Your task to perform on an android device: What's the news in Japan? Image 0: 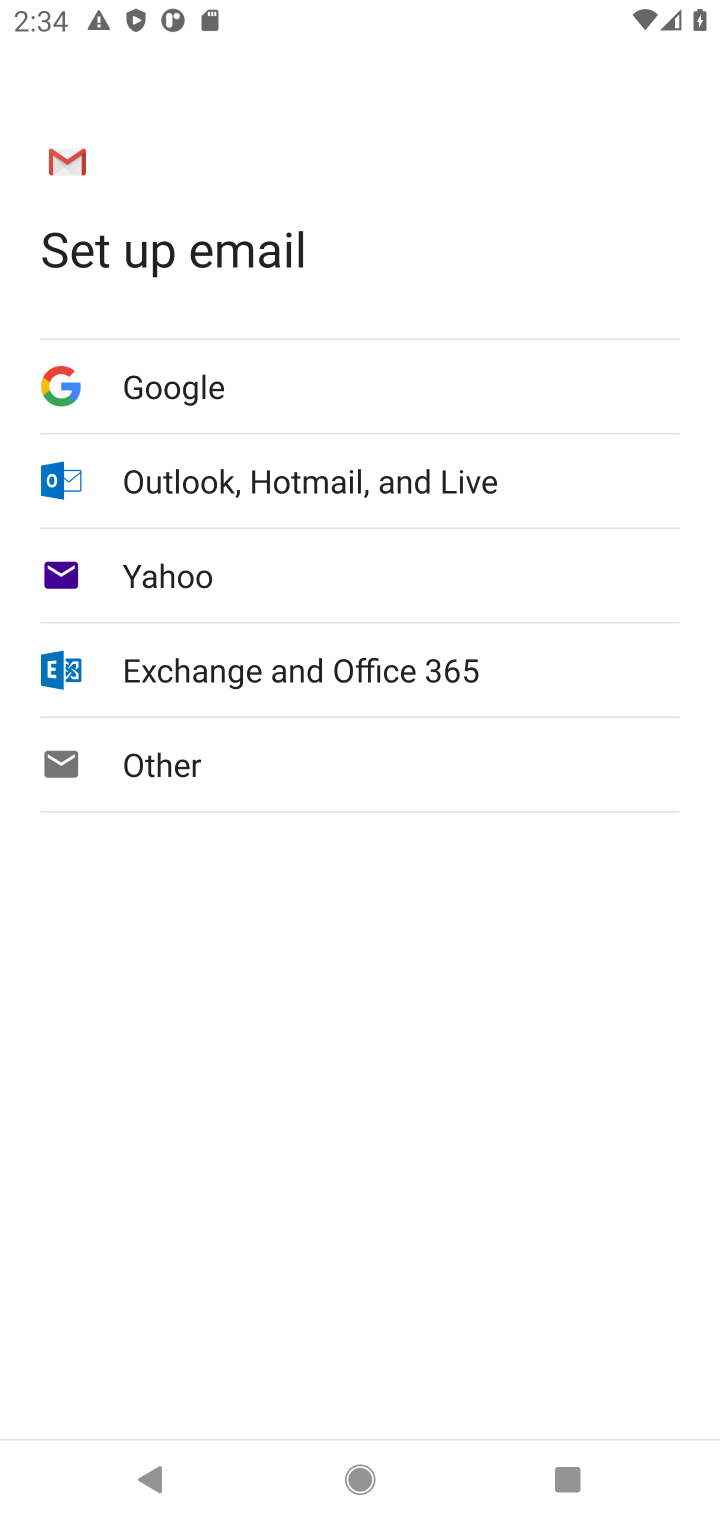
Step 0: press back button
Your task to perform on an android device: What's the news in Japan? Image 1: 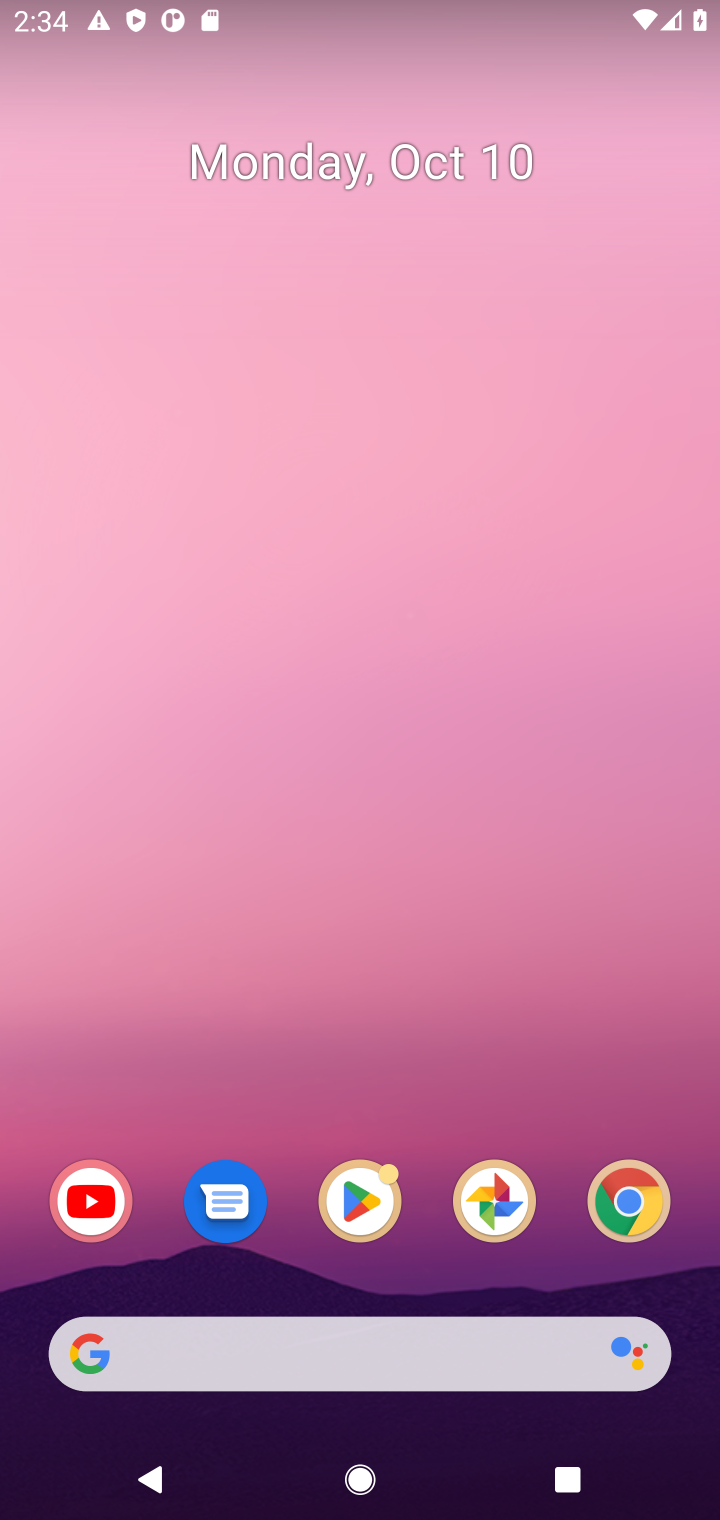
Step 1: type "news in Japan?"
Your task to perform on an android device: What's the news in Japan? Image 2: 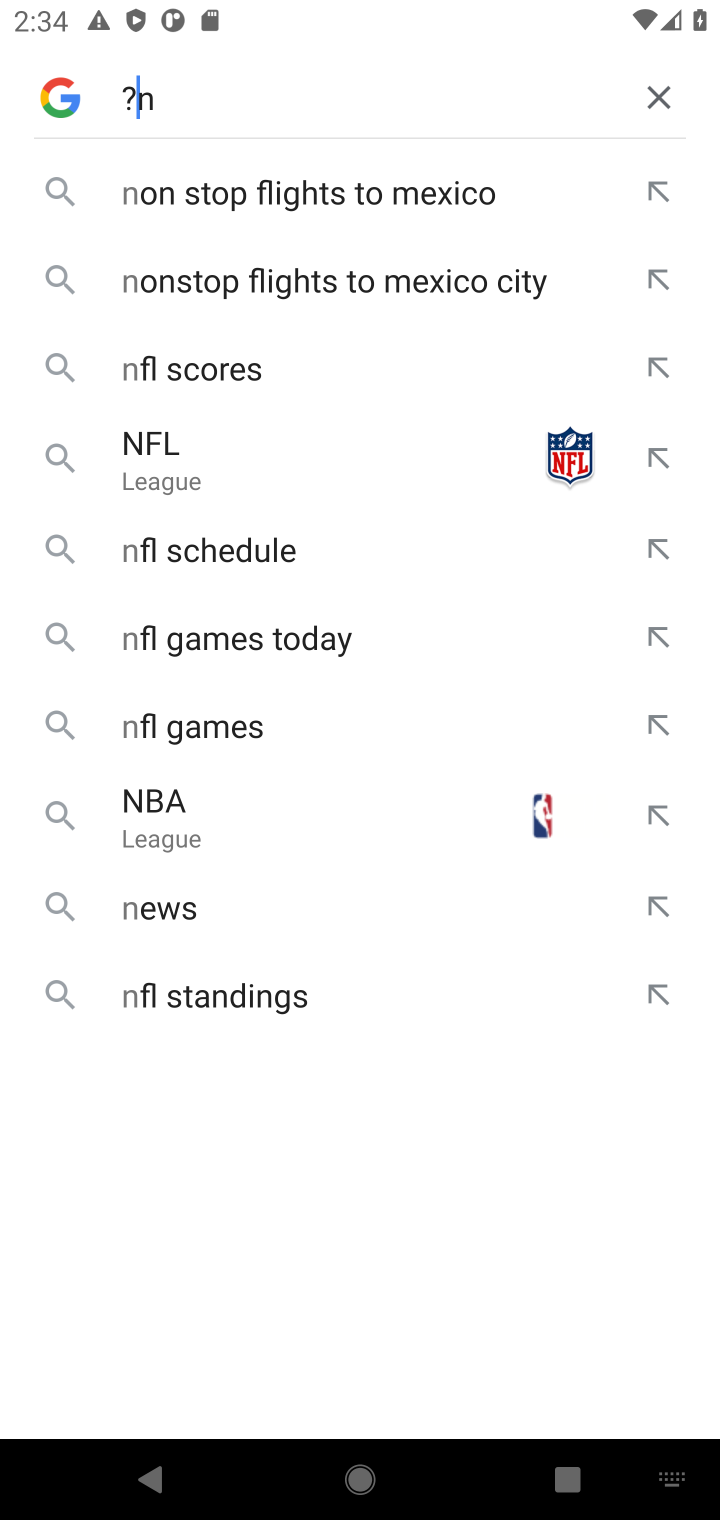
Step 2: click (206, 89)
Your task to perform on an android device: What's the news in Japan? Image 3: 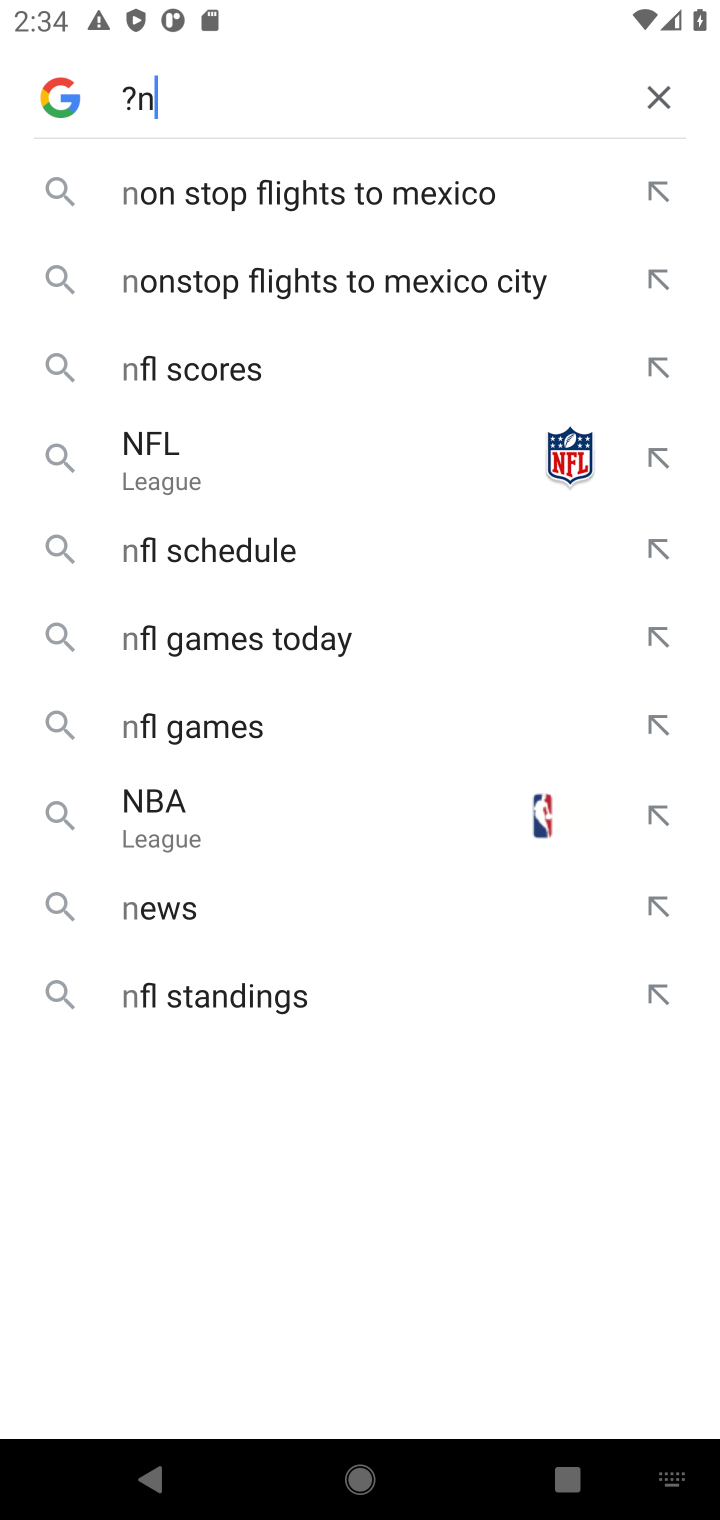
Step 3: click (653, 103)
Your task to perform on an android device: What's the news in Japan? Image 4: 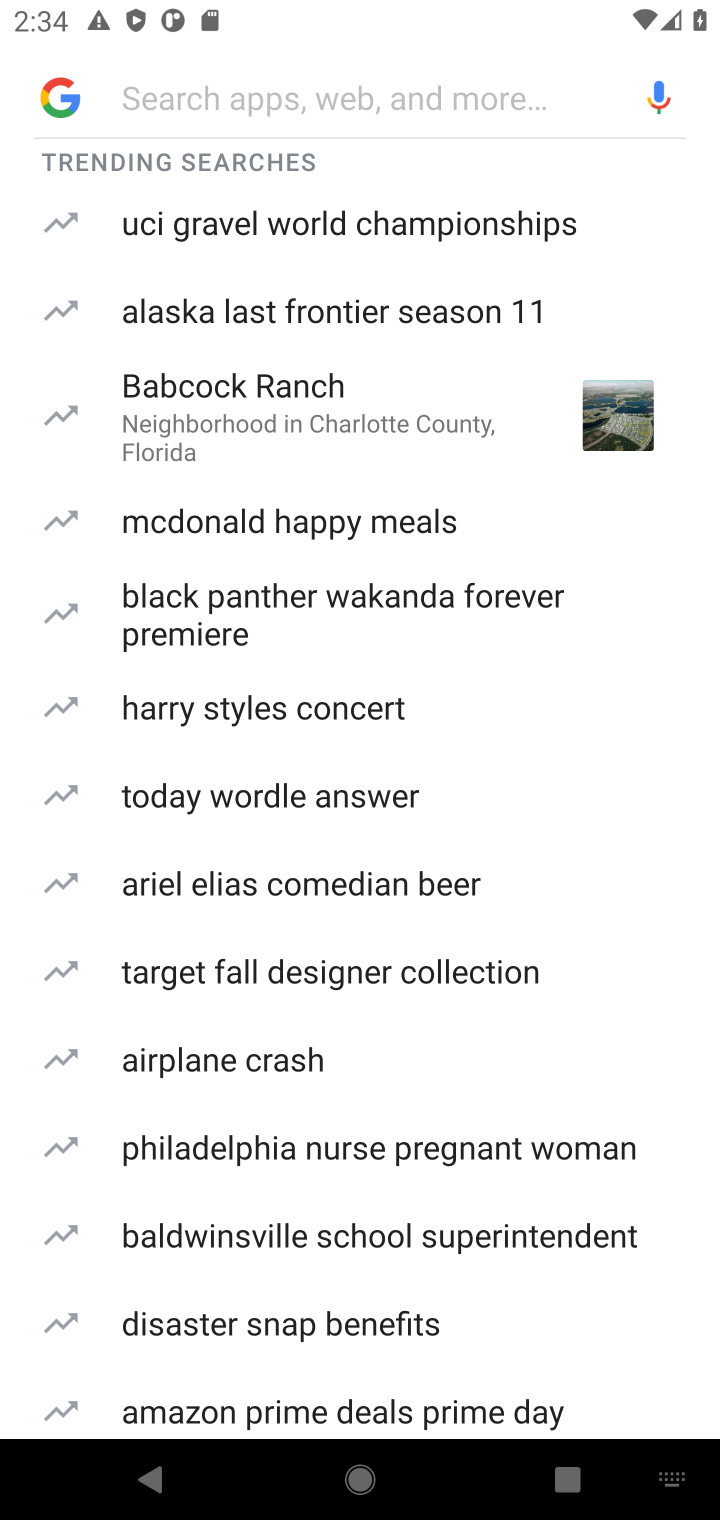
Step 4: type "news in Japan?"
Your task to perform on an android device: What's the news in Japan? Image 5: 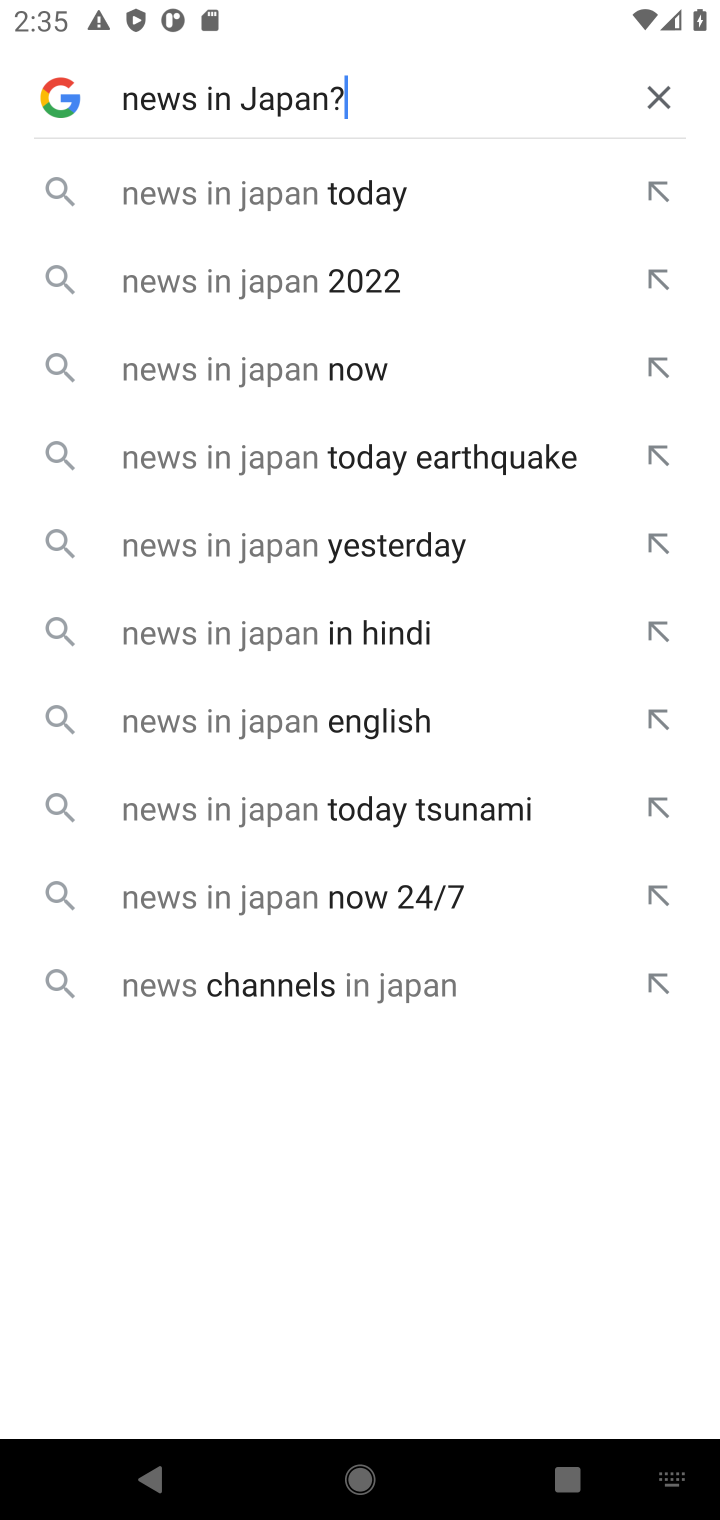
Step 5: click (237, 652)
Your task to perform on an android device: What's the news in Japan? Image 6: 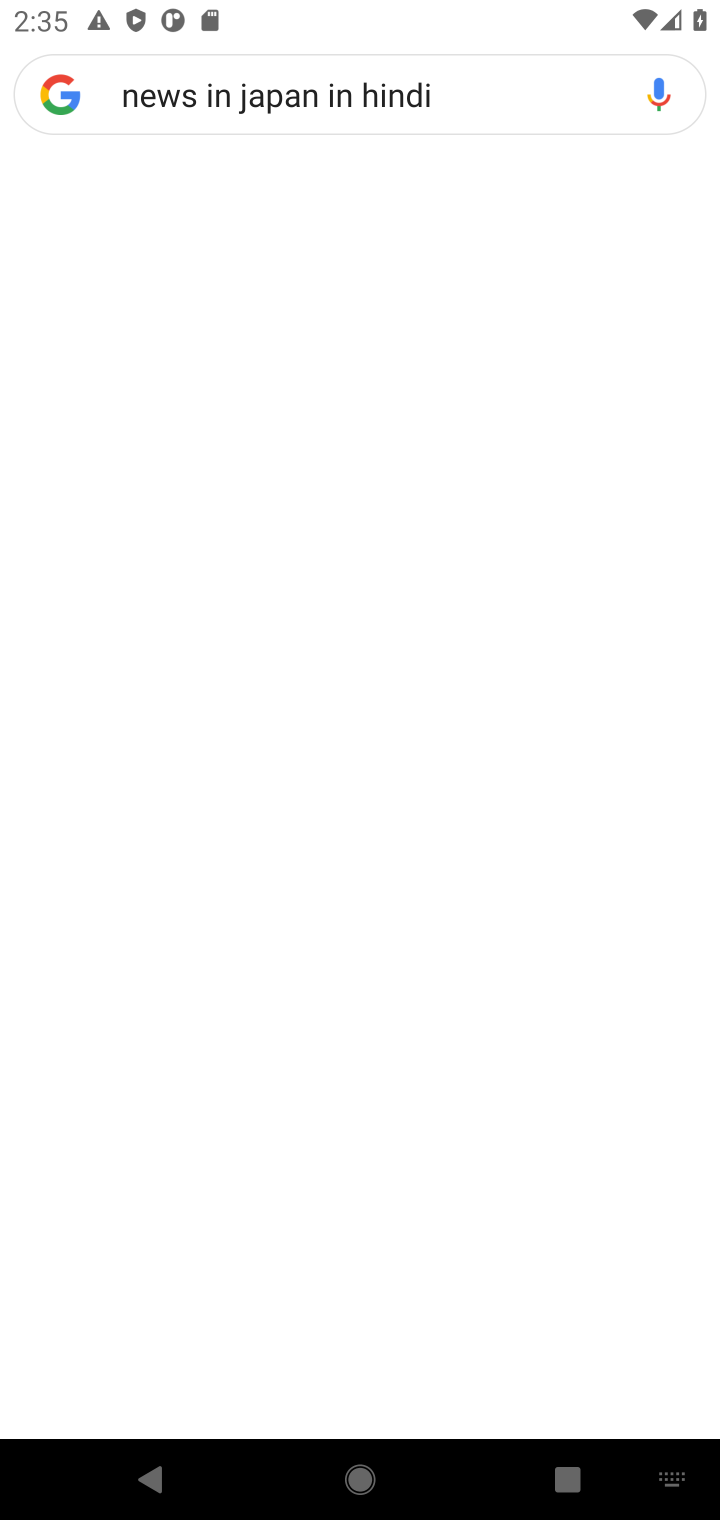
Step 6: click (237, 639)
Your task to perform on an android device: What's the news in Japan? Image 7: 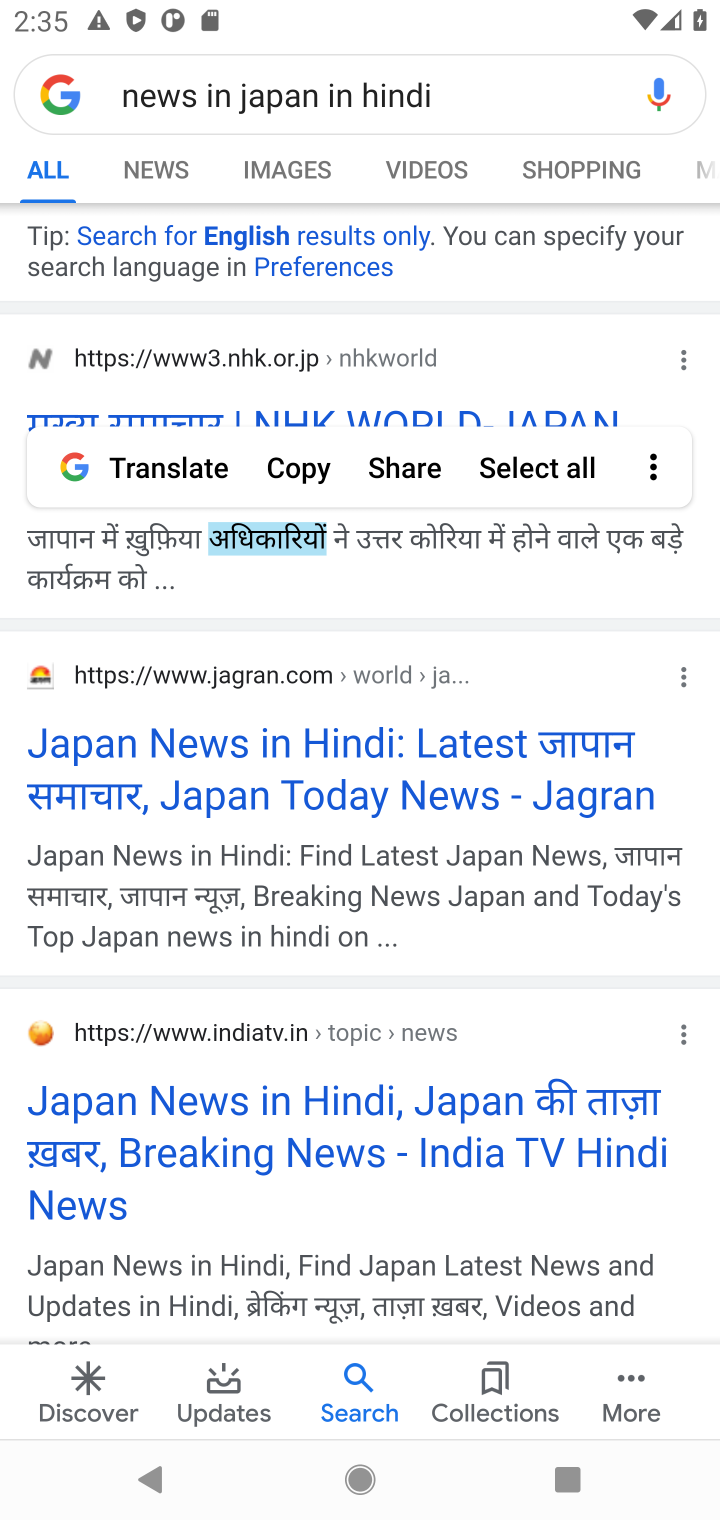
Step 7: click (250, 782)
Your task to perform on an android device: What's the news in Japan? Image 8: 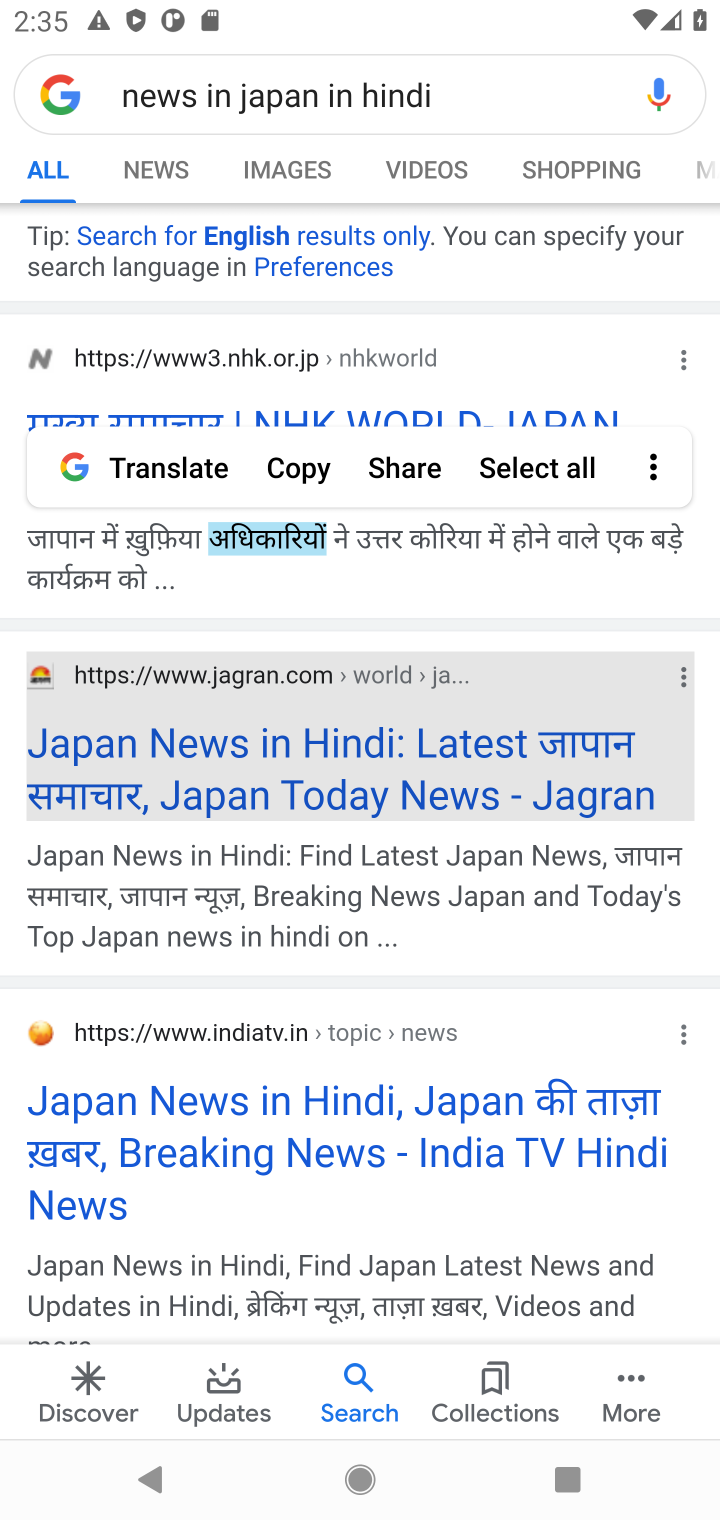
Step 8: click (250, 785)
Your task to perform on an android device: What's the news in Japan? Image 9: 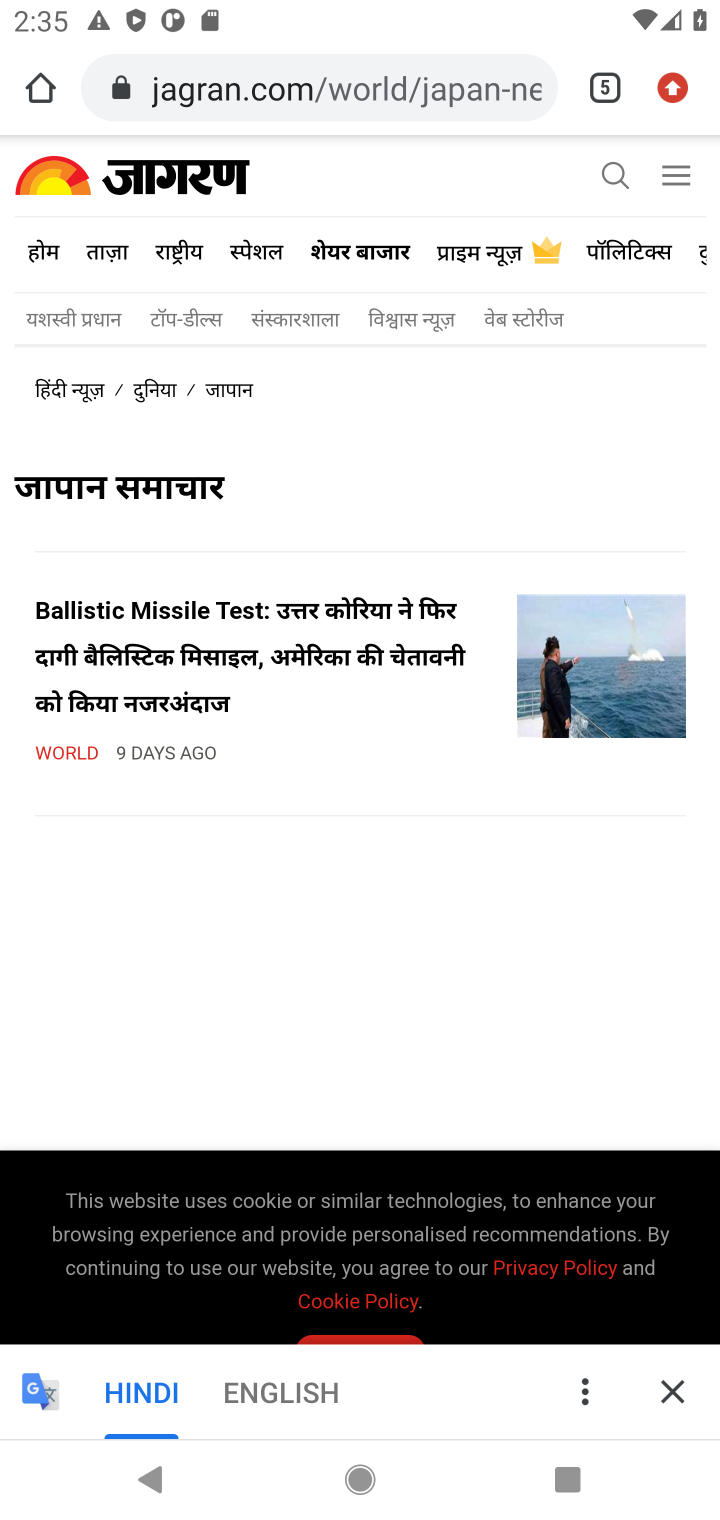
Step 9: drag from (307, 845) to (348, 759)
Your task to perform on an android device: What's the news in Japan? Image 10: 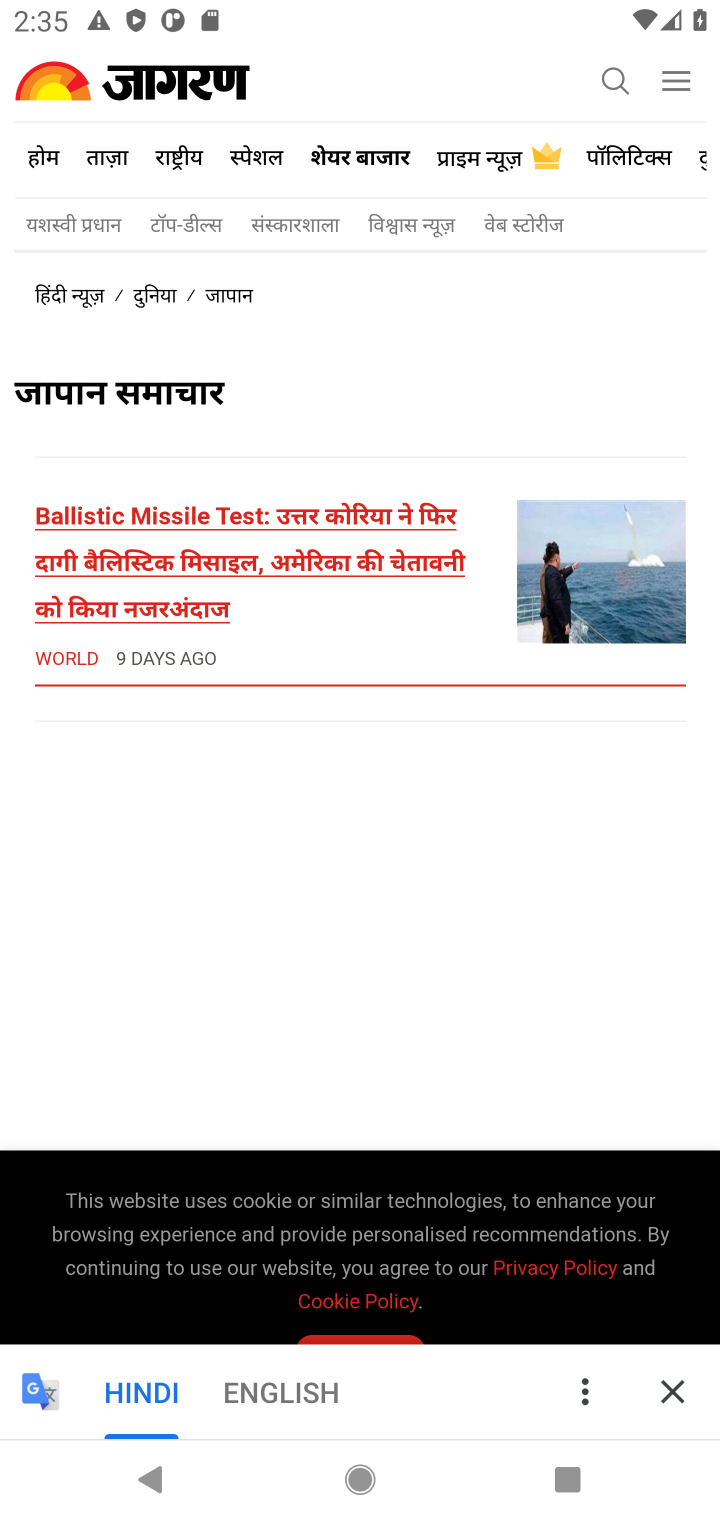
Step 10: drag from (390, 877) to (413, 697)
Your task to perform on an android device: What's the news in Japan? Image 11: 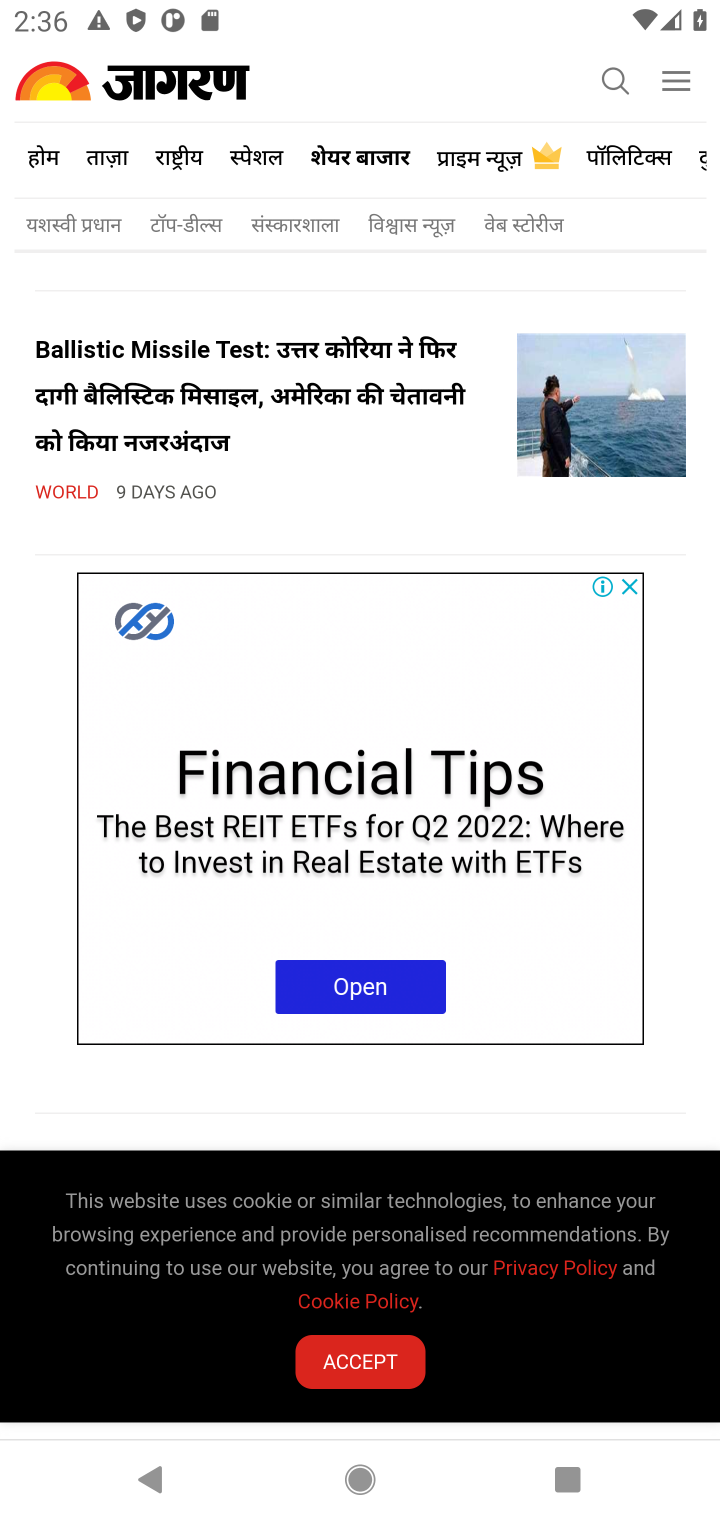
Step 11: click (402, 946)
Your task to perform on an android device: What's the news in Japan? Image 12: 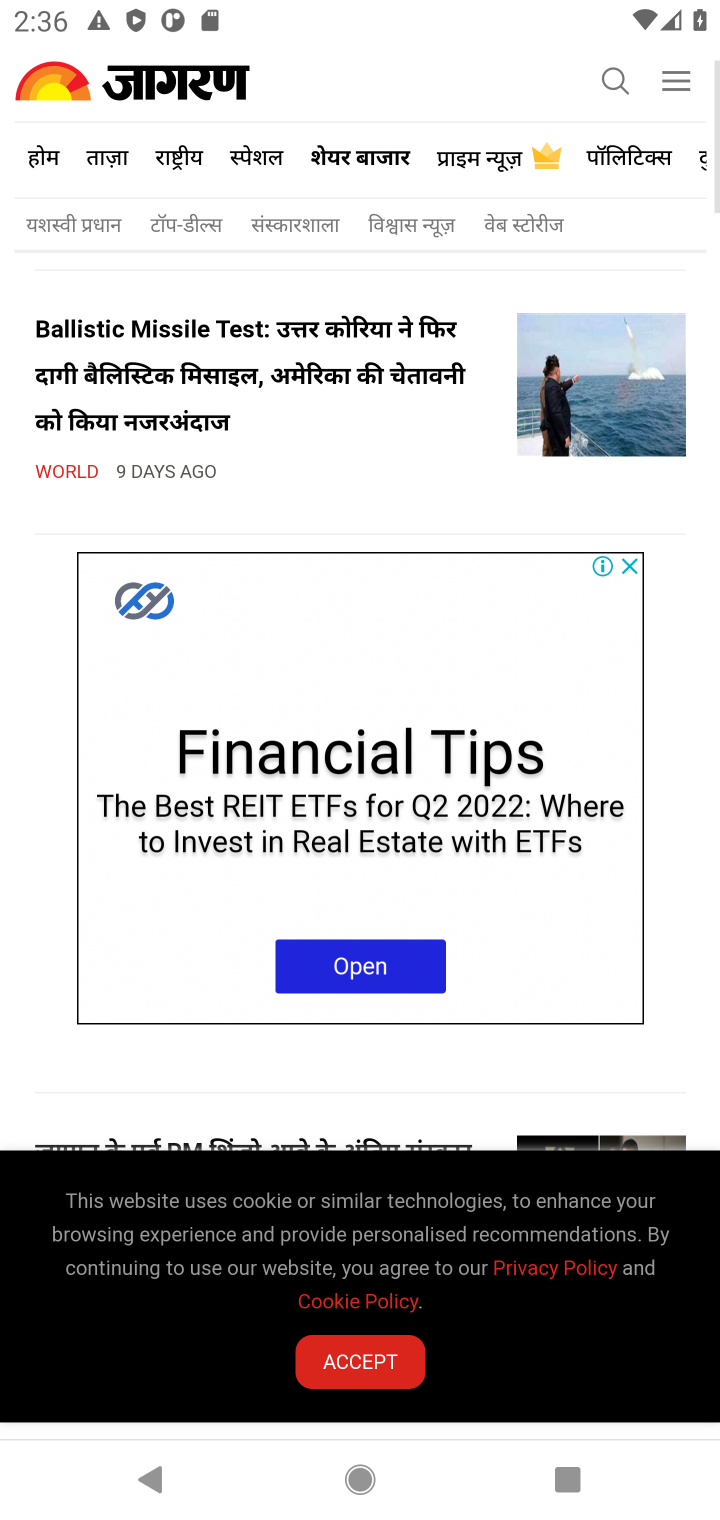
Step 12: click (361, 1371)
Your task to perform on an android device: What's the news in Japan? Image 13: 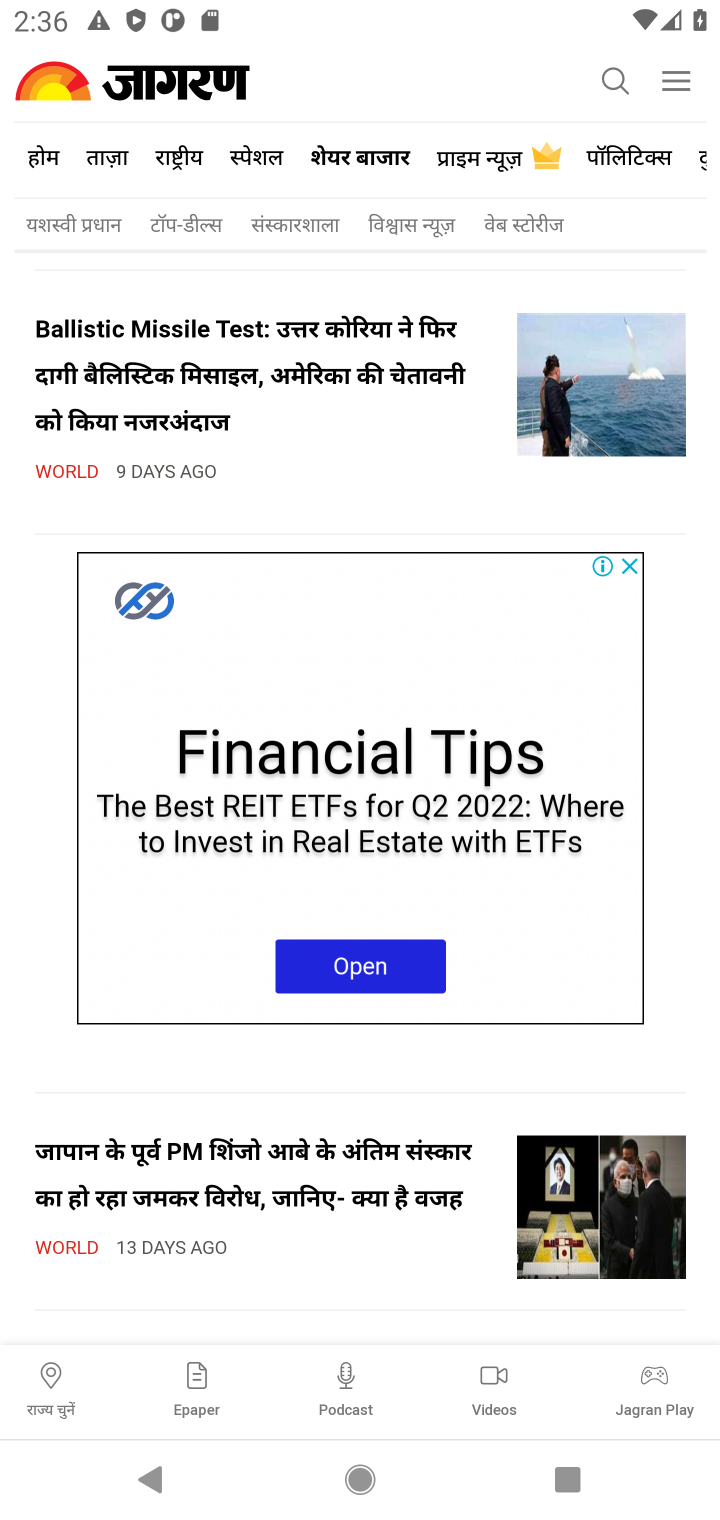
Step 13: click (419, 1237)
Your task to perform on an android device: What's the news in Japan? Image 14: 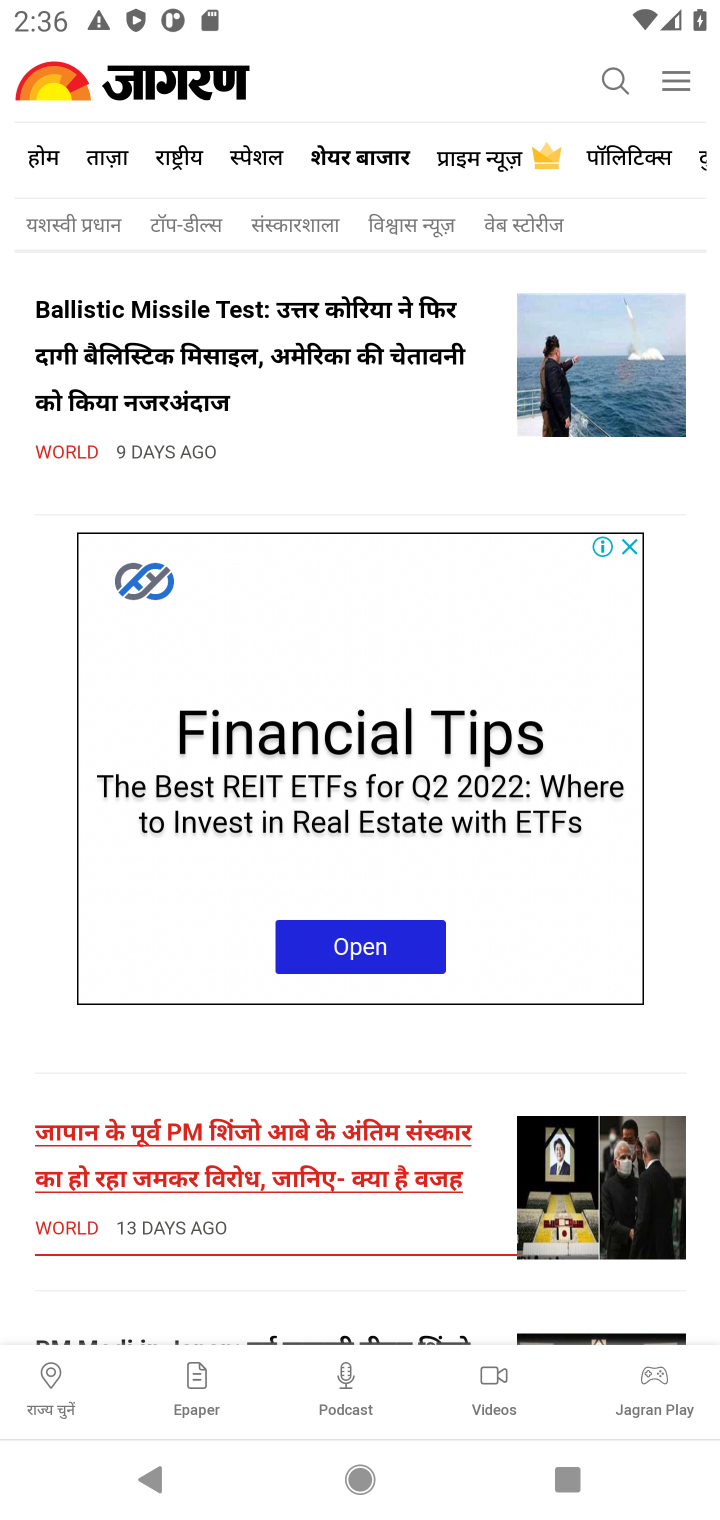
Step 14: click (397, 1160)
Your task to perform on an android device: What's the news in Japan? Image 15: 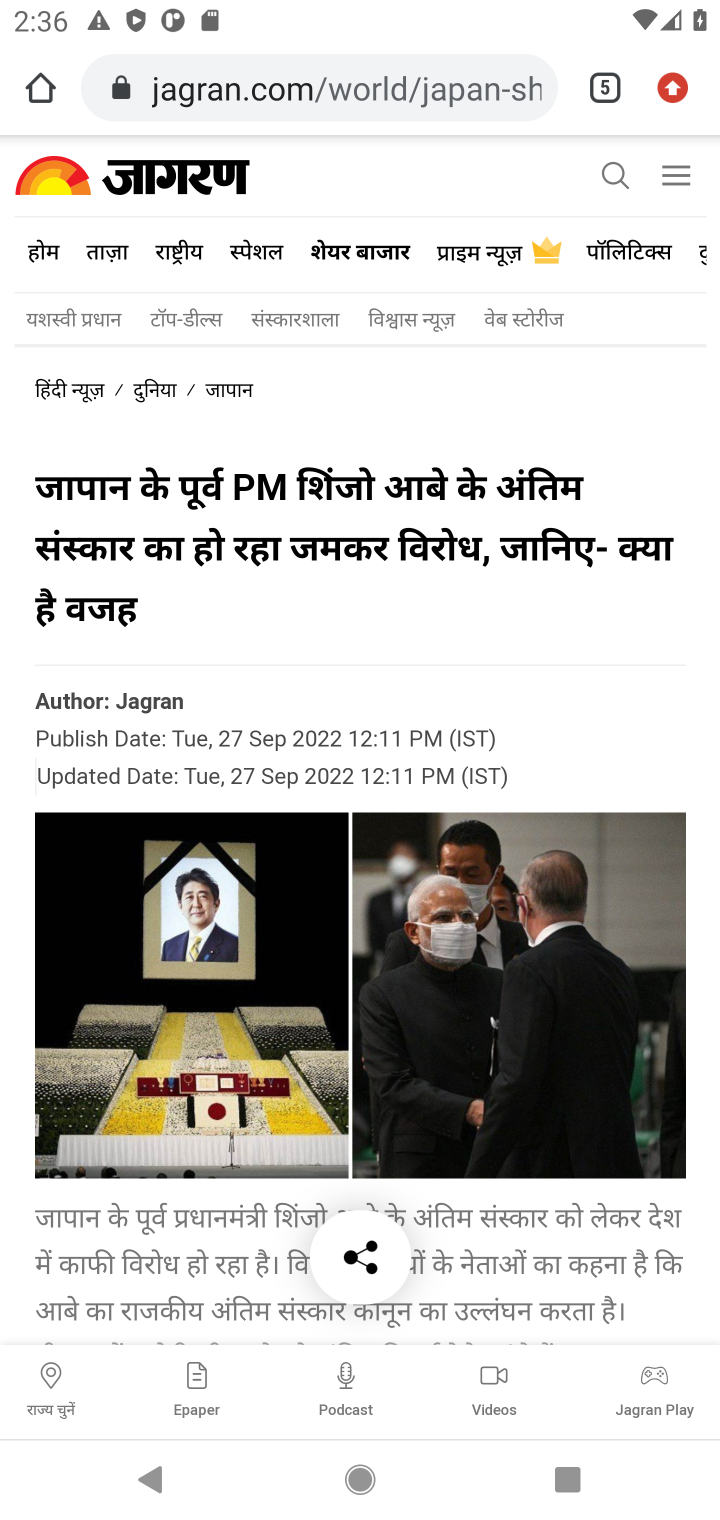
Step 15: drag from (521, 1258) to (586, 785)
Your task to perform on an android device: What's the news in Japan? Image 16: 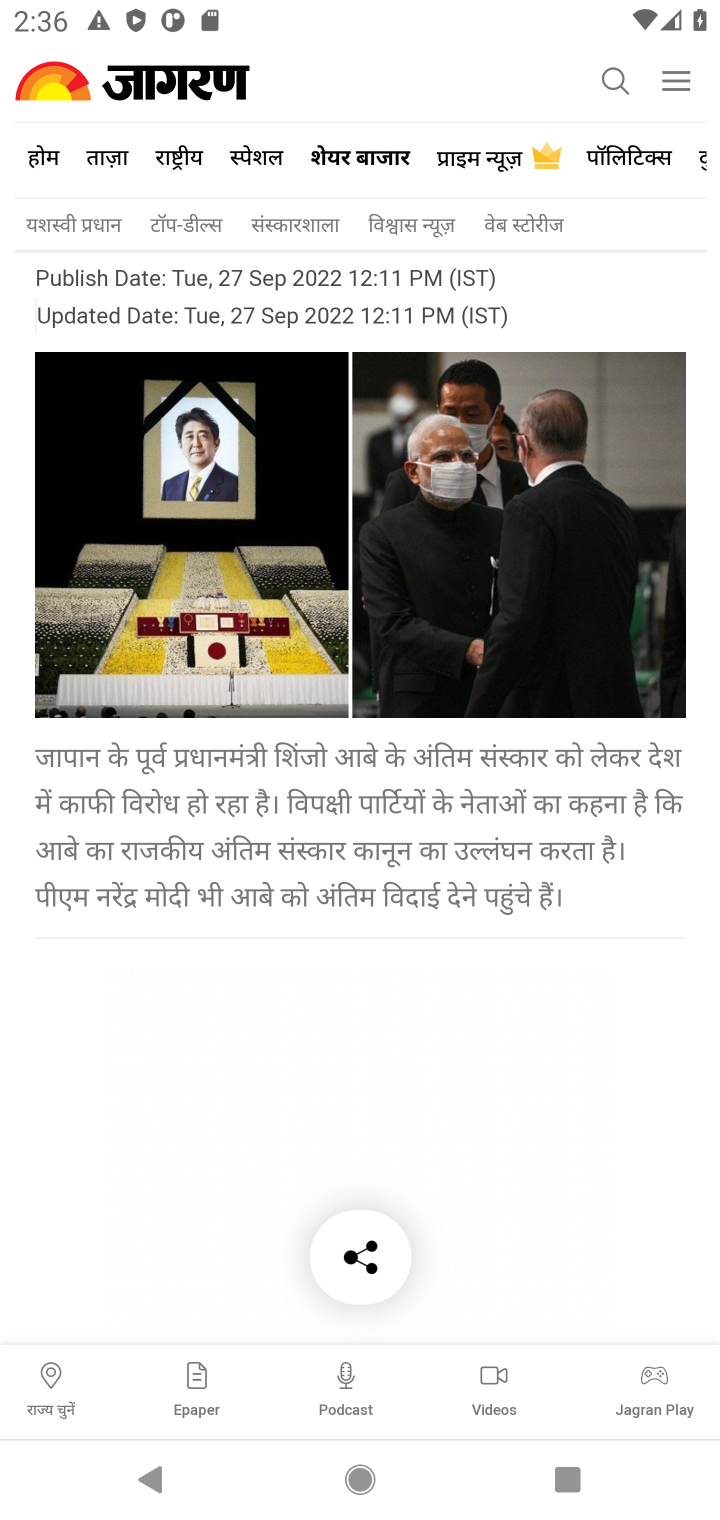
Step 16: drag from (530, 1129) to (519, 669)
Your task to perform on an android device: What's the news in Japan? Image 17: 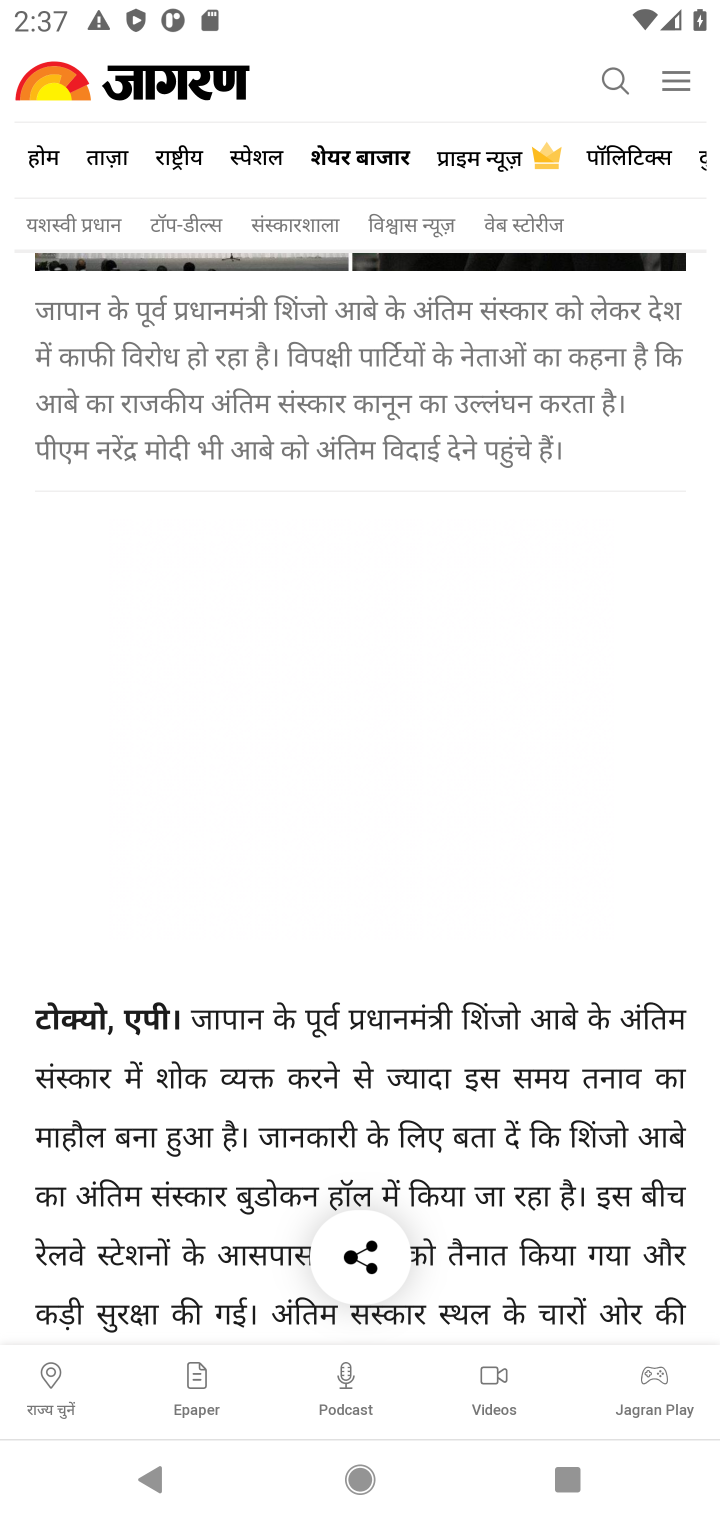
Step 17: drag from (499, 1124) to (443, 400)
Your task to perform on an android device: What's the news in Japan? Image 18: 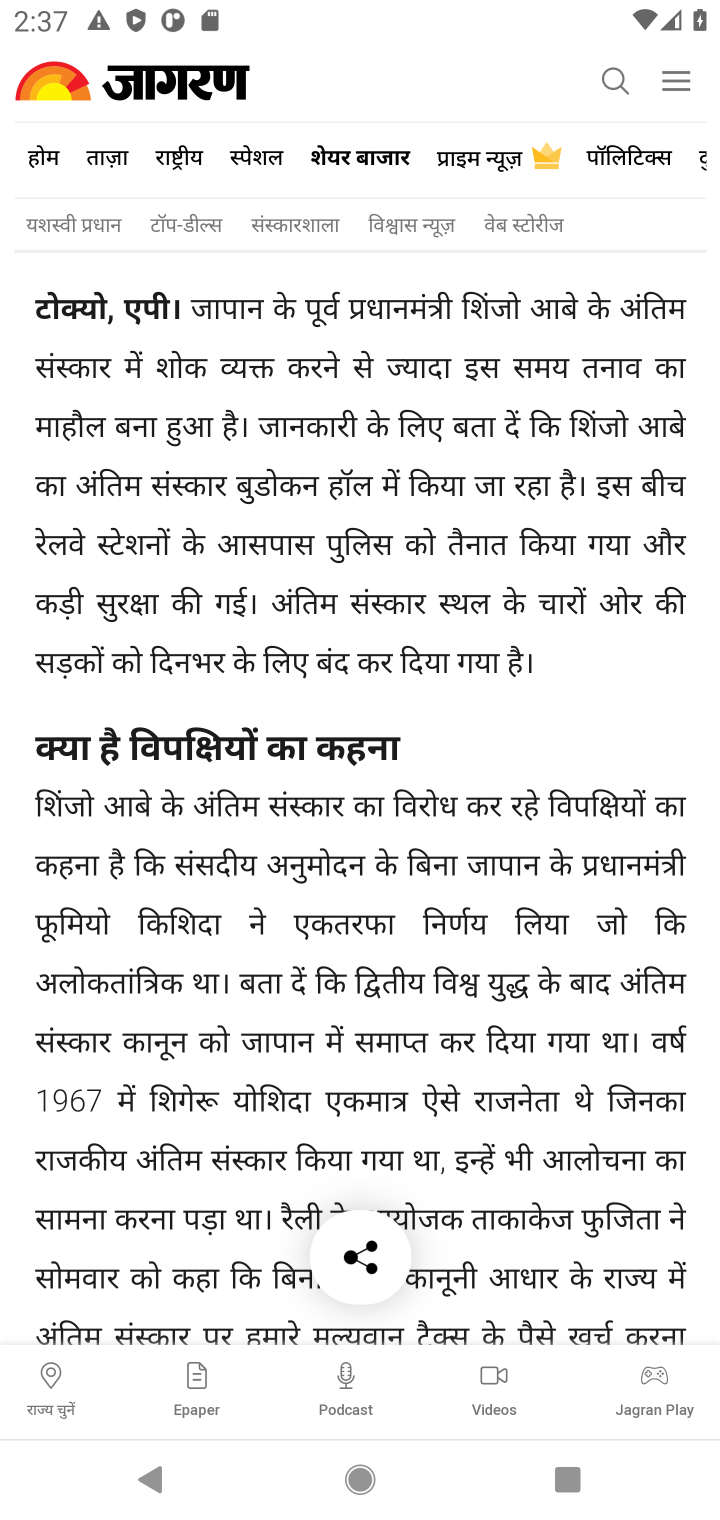
Step 18: click (447, 363)
Your task to perform on an android device: What's the news in Japan? Image 19: 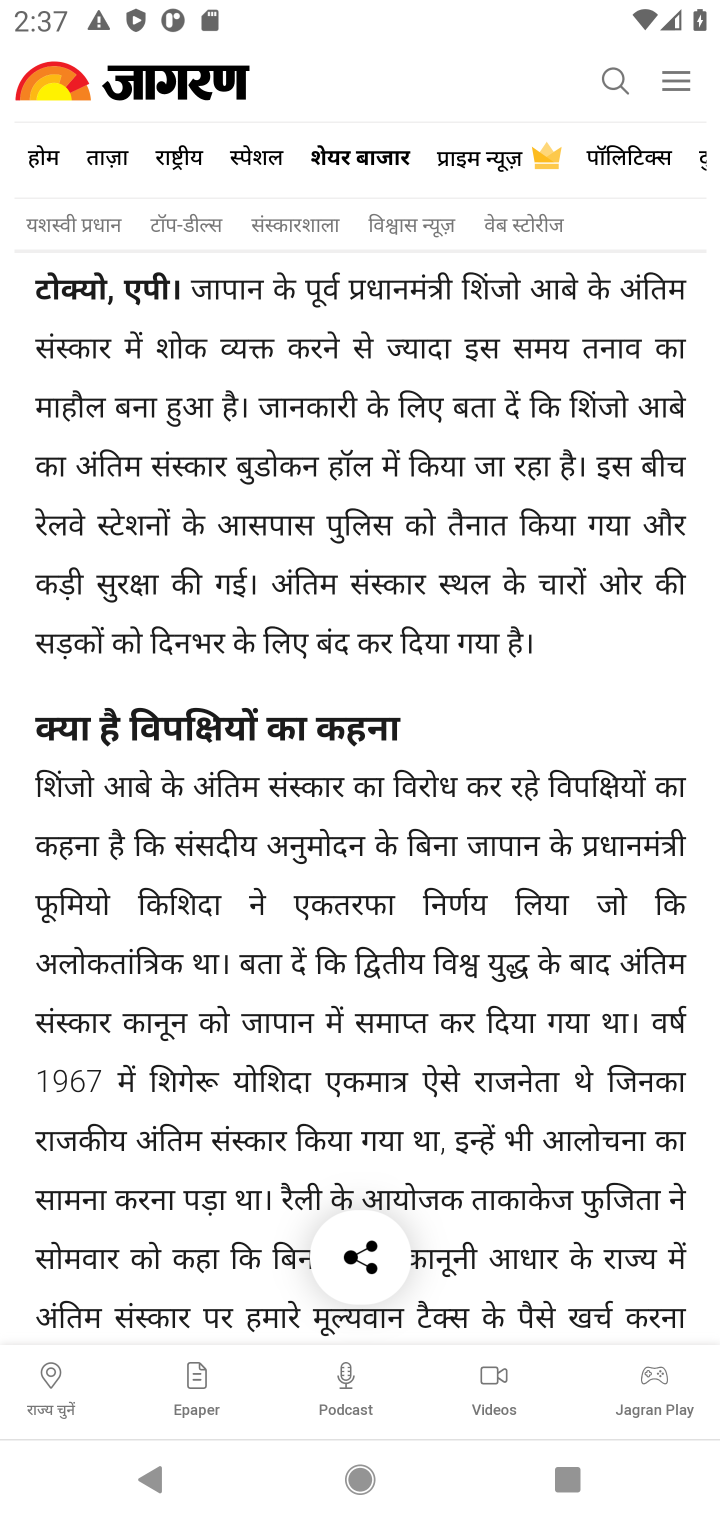
Step 19: task complete